Your task to perform on an android device: Is it going to rain tomorrow? Image 0: 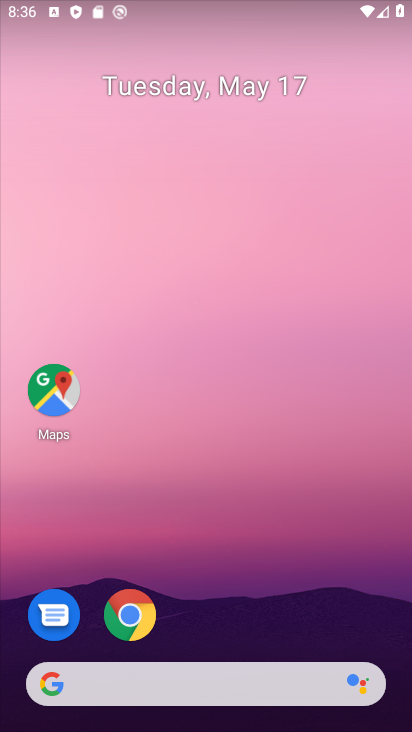
Step 0: drag from (12, 191) to (400, 293)
Your task to perform on an android device: Is it going to rain tomorrow? Image 1: 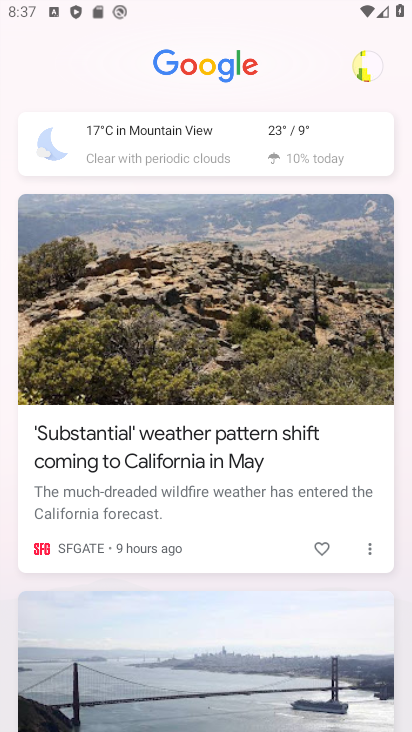
Step 1: click (314, 150)
Your task to perform on an android device: Is it going to rain tomorrow? Image 2: 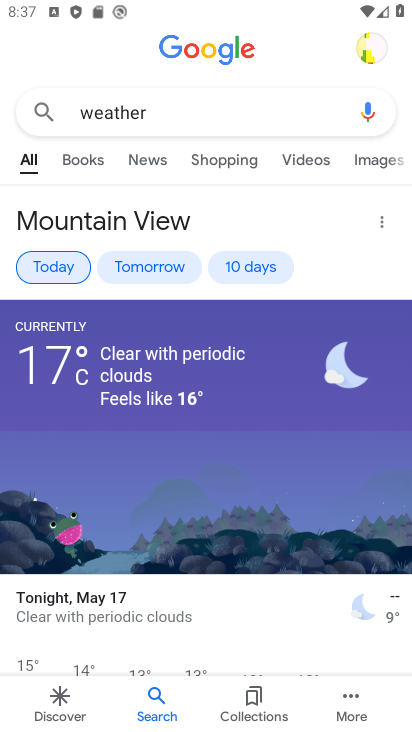
Step 2: click (165, 266)
Your task to perform on an android device: Is it going to rain tomorrow? Image 3: 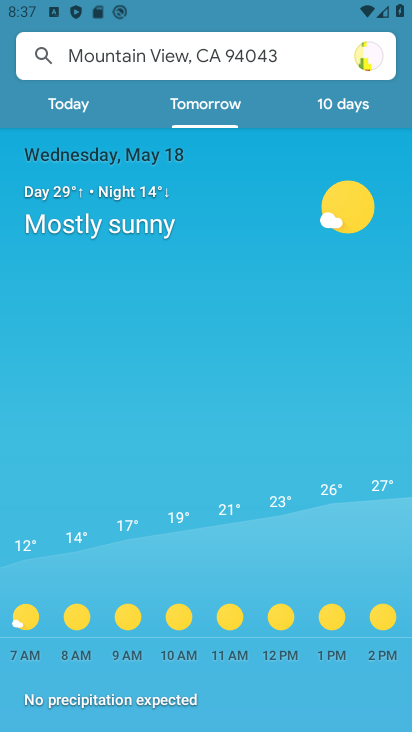
Step 3: task complete